Your task to perform on an android device: turn on airplane mode Image 0: 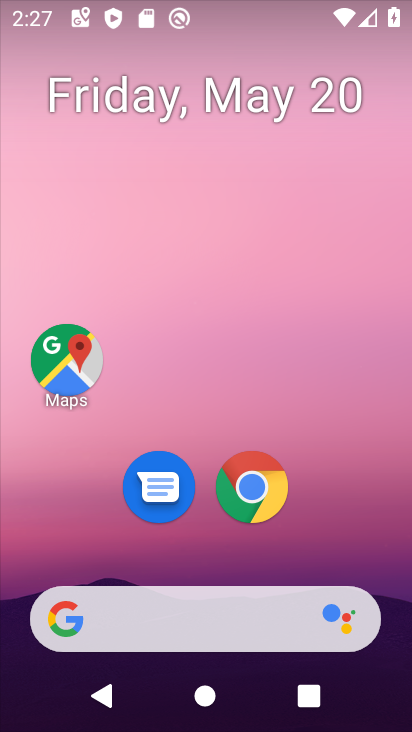
Step 0: drag from (347, 535) to (411, 251)
Your task to perform on an android device: turn on airplane mode Image 1: 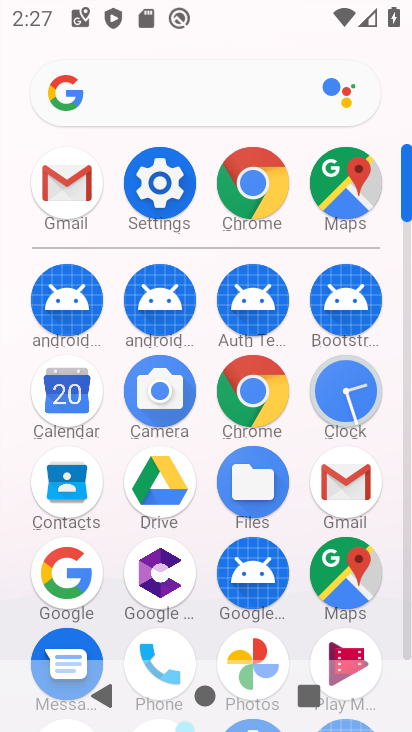
Step 1: click (165, 177)
Your task to perform on an android device: turn on airplane mode Image 2: 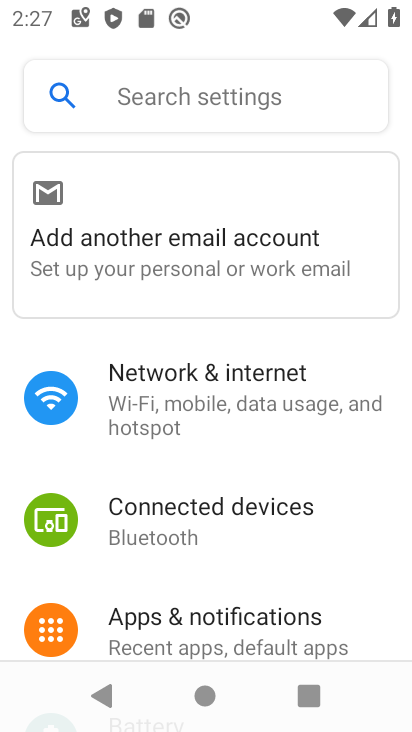
Step 2: click (173, 386)
Your task to perform on an android device: turn on airplane mode Image 3: 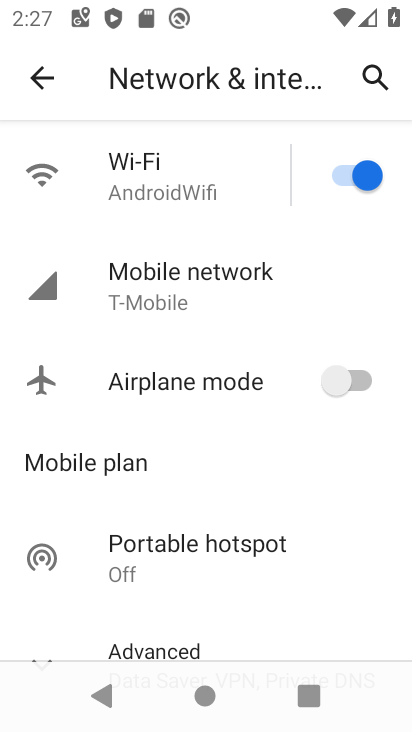
Step 3: click (343, 377)
Your task to perform on an android device: turn on airplane mode Image 4: 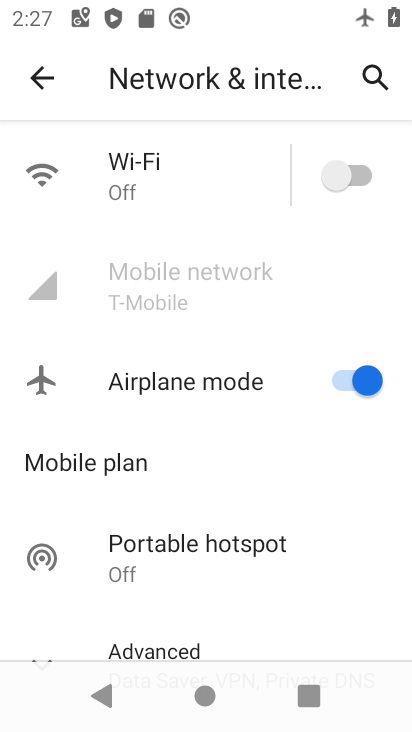
Step 4: task complete